Your task to perform on an android device: toggle show notifications on the lock screen Image 0: 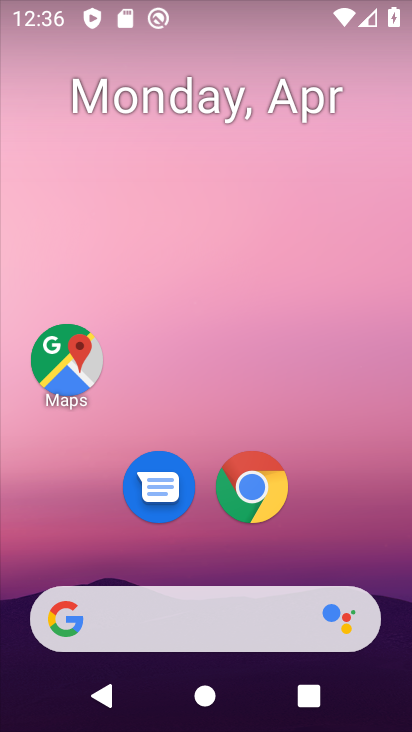
Step 0: drag from (397, 635) to (328, 36)
Your task to perform on an android device: toggle show notifications on the lock screen Image 1: 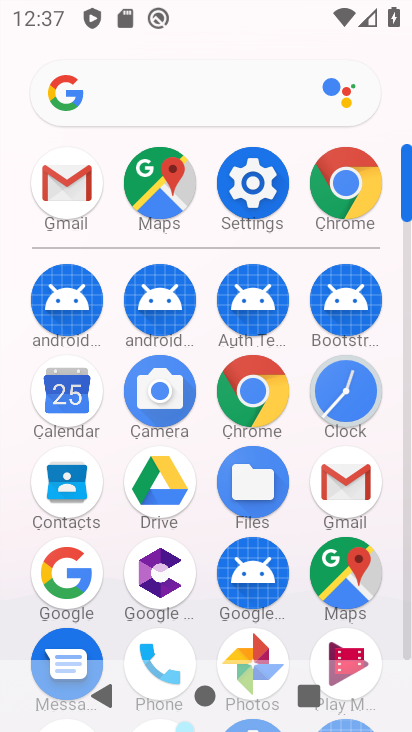
Step 1: click (256, 199)
Your task to perform on an android device: toggle show notifications on the lock screen Image 2: 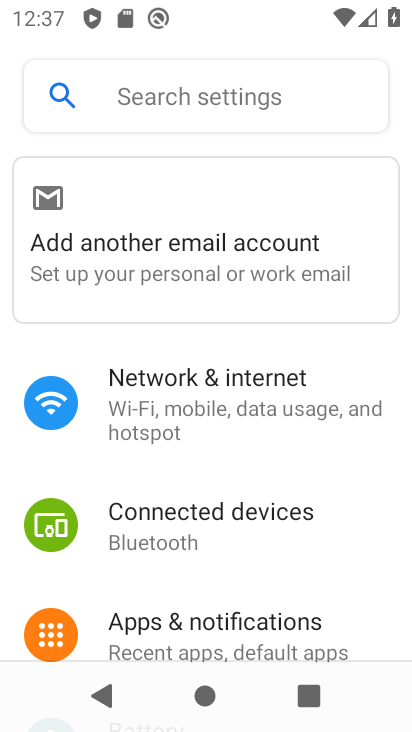
Step 2: click (242, 635)
Your task to perform on an android device: toggle show notifications on the lock screen Image 3: 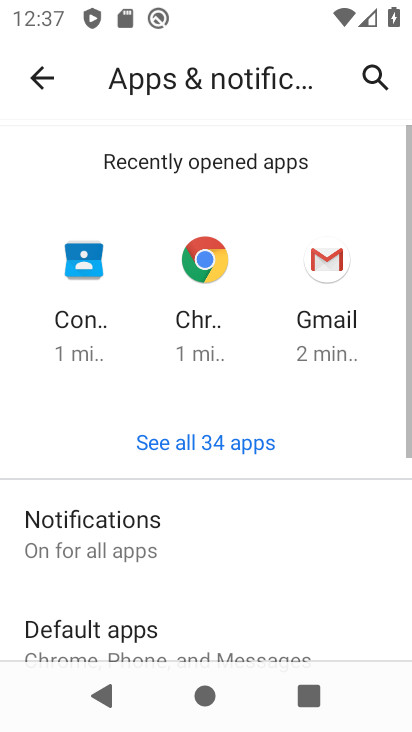
Step 3: click (212, 508)
Your task to perform on an android device: toggle show notifications on the lock screen Image 4: 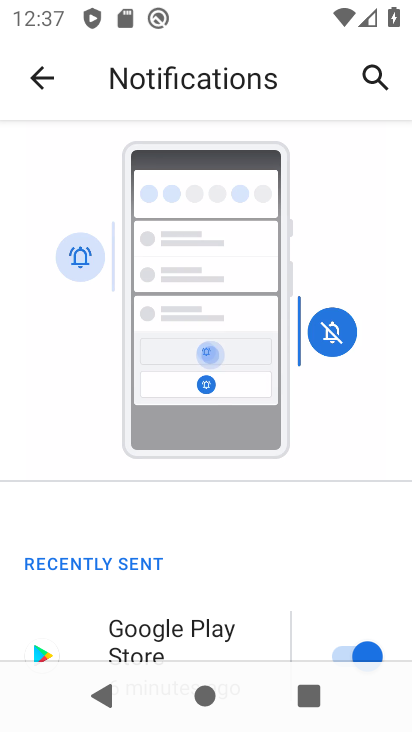
Step 4: drag from (131, 631) to (219, 86)
Your task to perform on an android device: toggle show notifications on the lock screen Image 5: 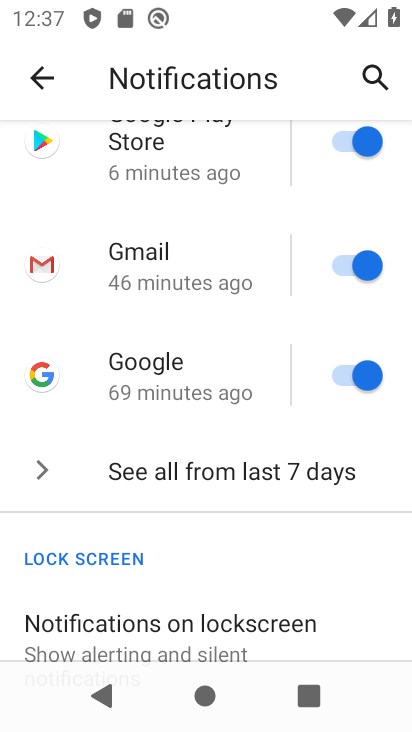
Step 5: drag from (117, 556) to (229, 275)
Your task to perform on an android device: toggle show notifications on the lock screen Image 6: 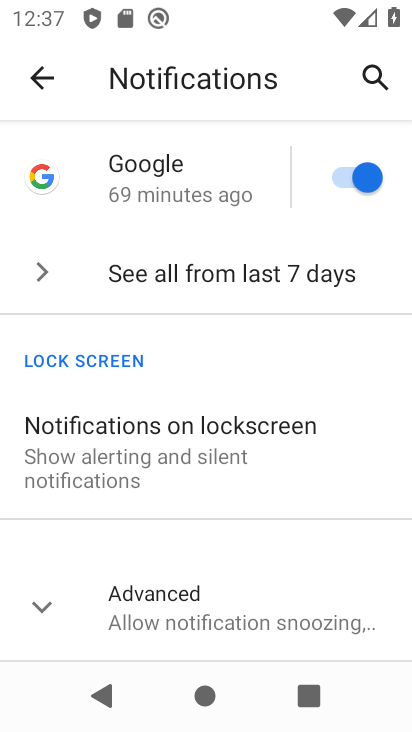
Step 6: click (205, 422)
Your task to perform on an android device: toggle show notifications on the lock screen Image 7: 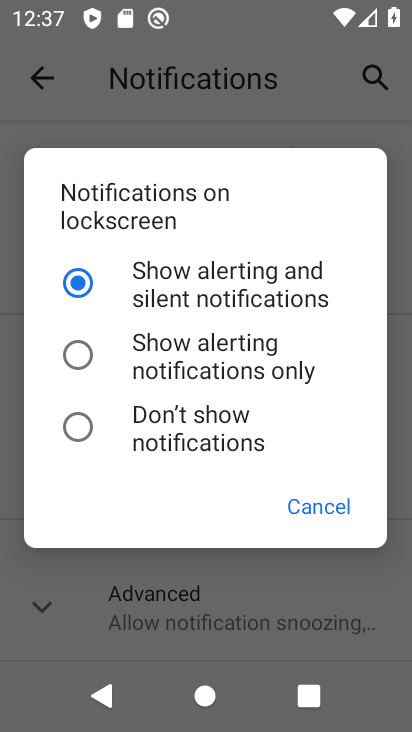
Step 7: click (205, 422)
Your task to perform on an android device: toggle show notifications on the lock screen Image 8: 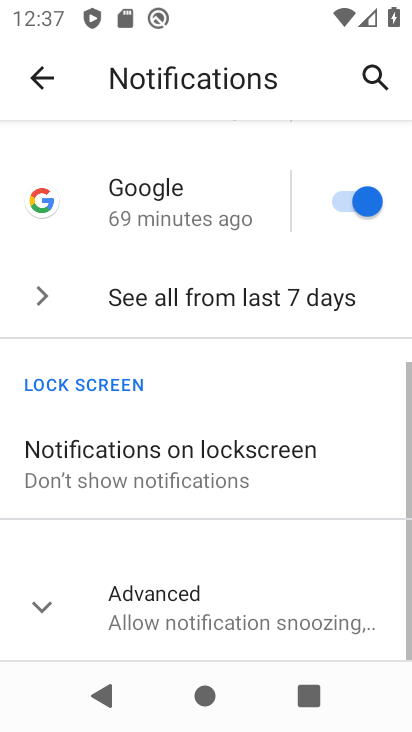
Step 8: task complete